Your task to perform on an android device: turn off translation in the chrome app Image 0: 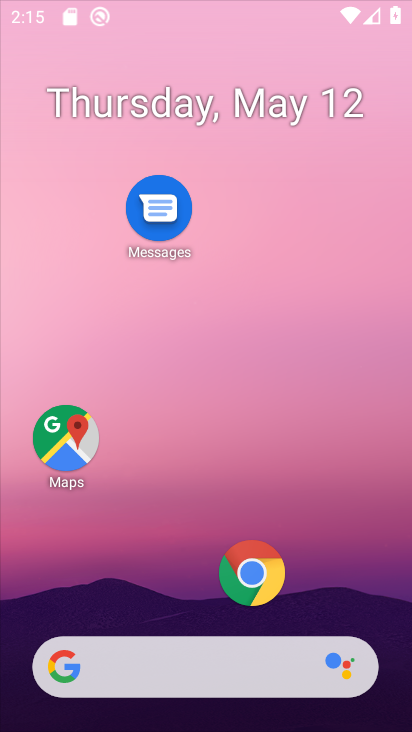
Step 0: click (184, 219)
Your task to perform on an android device: turn off translation in the chrome app Image 1: 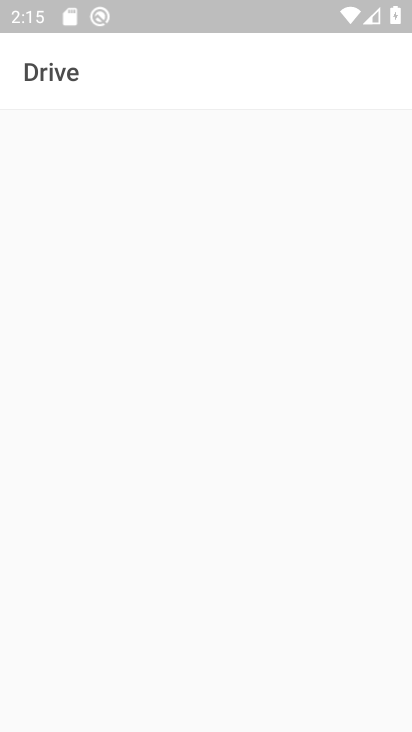
Step 1: press home button
Your task to perform on an android device: turn off translation in the chrome app Image 2: 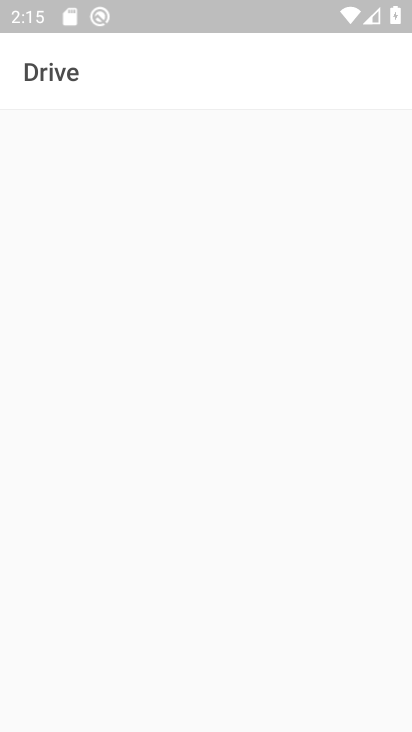
Step 2: press home button
Your task to perform on an android device: turn off translation in the chrome app Image 3: 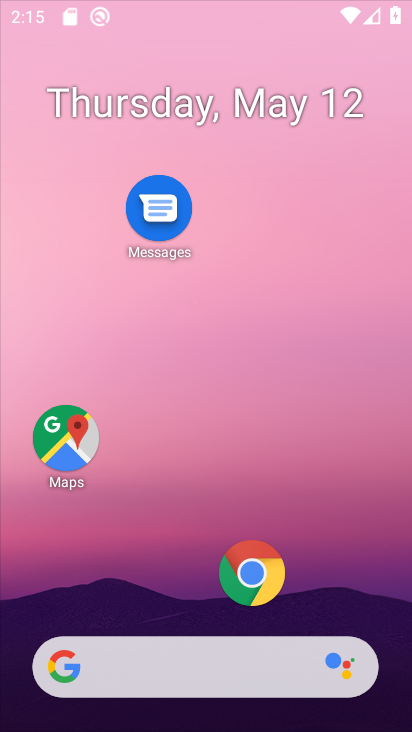
Step 3: press home button
Your task to perform on an android device: turn off translation in the chrome app Image 4: 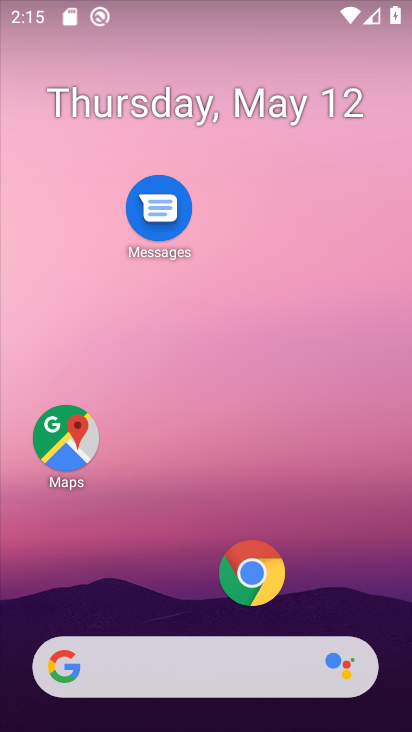
Step 4: drag from (169, 630) to (174, 280)
Your task to perform on an android device: turn off translation in the chrome app Image 5: 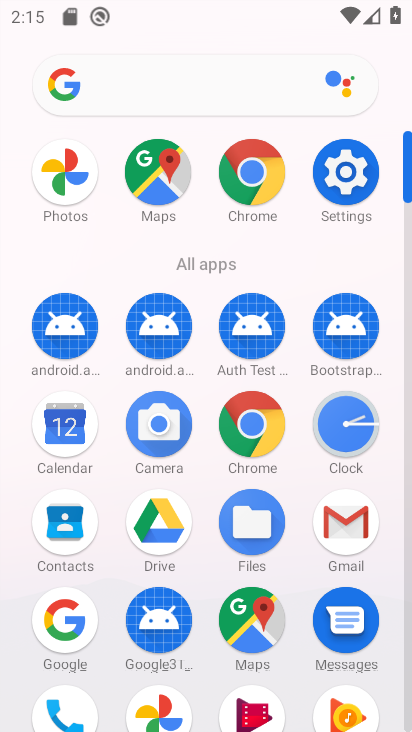
Step 5: click (253, 432)
Your task to perform on an android device: turn off translation in the chrome app Image 6: 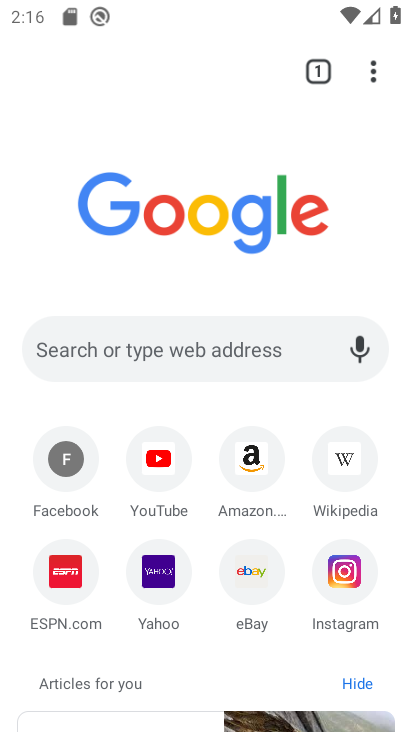
Step 6: click (372, 55)
Your task to perform on an android device: turn off translation in the chrome app Image 7: 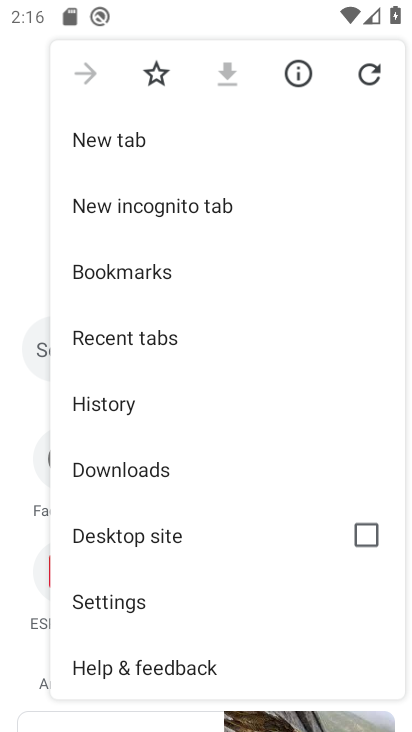
Step 7: drag from (206, 519) to (296, 63)
Your task to perform on an android device: turn off translation in the chrome app Image 8: 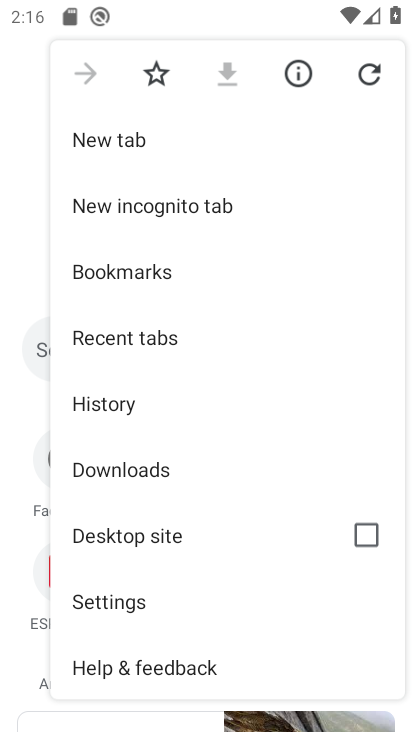
Step 8: click (137, 602)
Your task to perform on an android device: turn off translation in the chrome app Image 9: 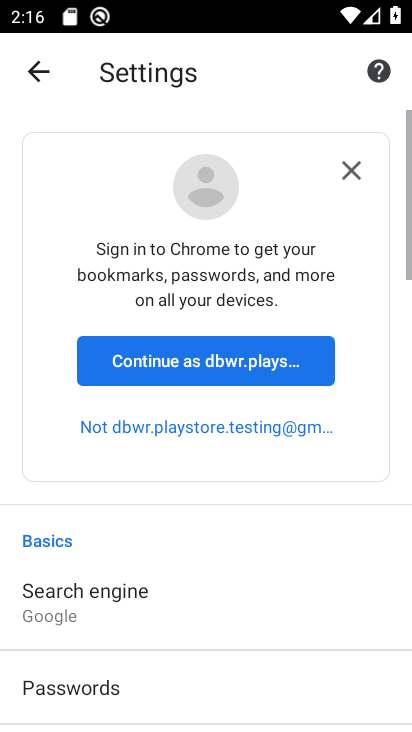
Step 9: drag from (220, 548) to (264, 173)
Your task to perform on an android device: turn off translation in the chrome app Image 10: 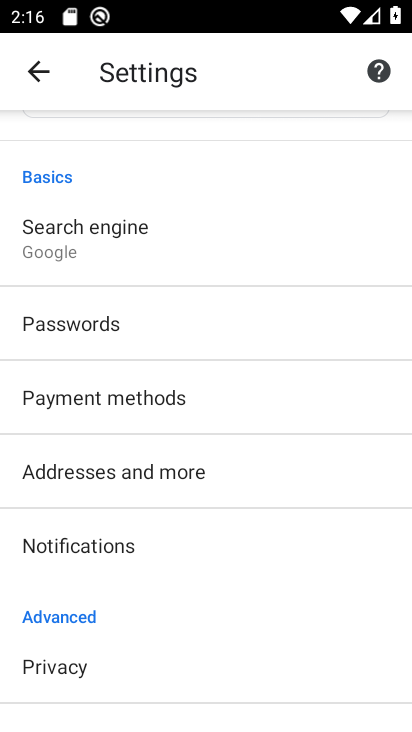
Step 10: drag from (232, 573) to (253, 308)
Your task to perform on an android device: turn off translation in the chrome app Image 11: 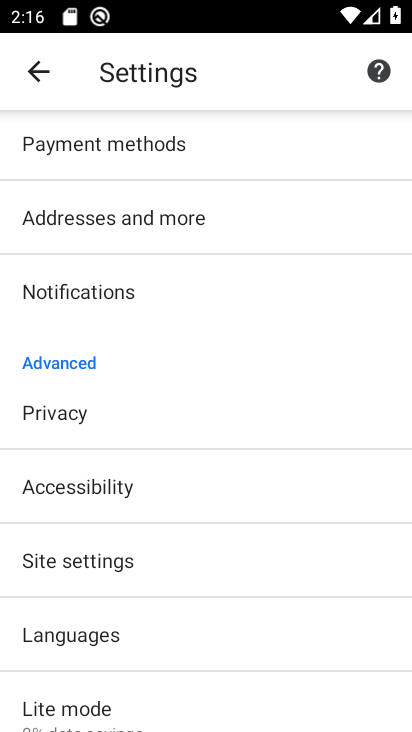
Step 11: click (131, 664)
Your task to perform on an android device: turn off translation in the chrome app Image 12: 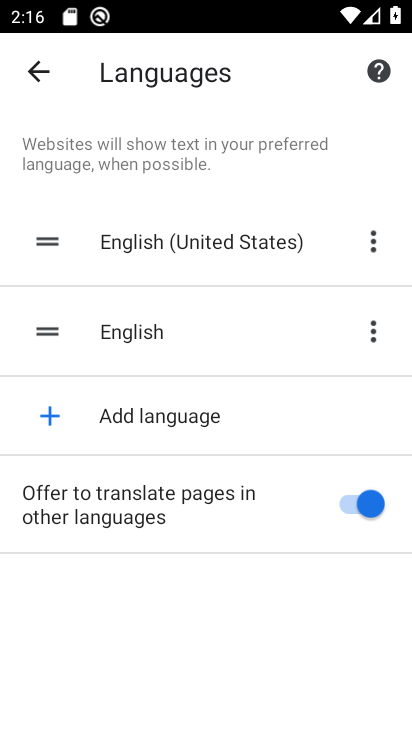
Step 12: click (361, 494)
Your task to perform on an android device: turn off translation in the chrome app Image 13: 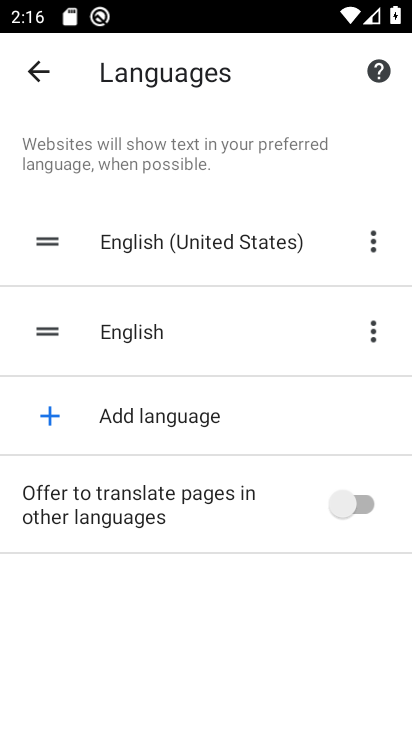
Step 13: task complete